Your task to perform on an android device: toggle wifi Image 0: 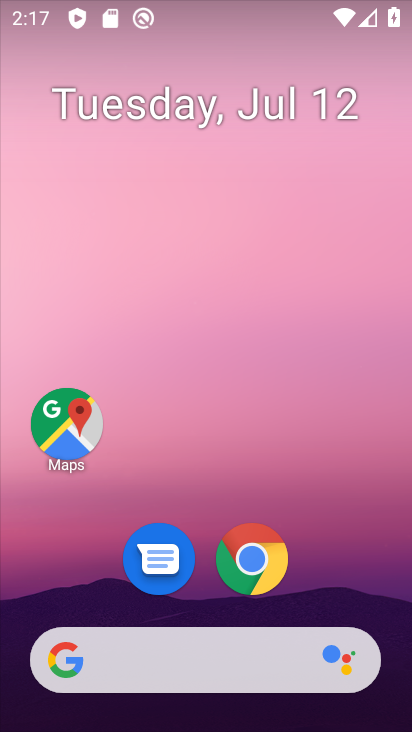
Step 0: press home button
Your task to perform on an android device: toggle wifi Image 1: 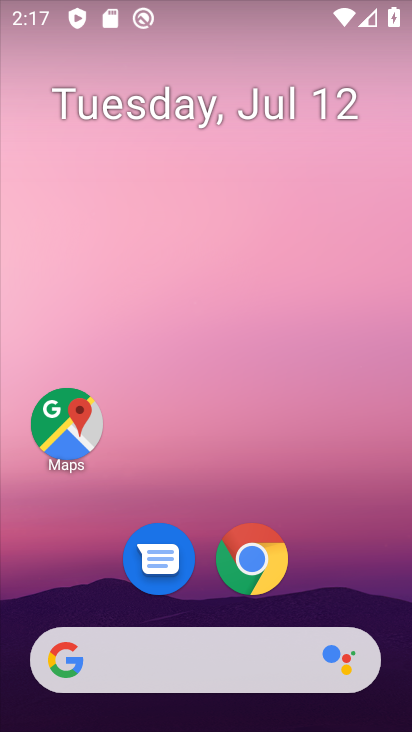
Step 1: drag from (348, 582) to (368, 219)
Your task to perform on an android device: toggle wifi Image 2: 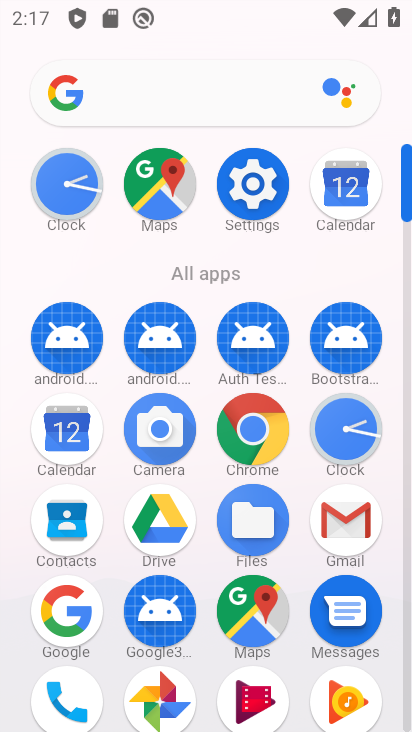
Step 2: click (263, 205)
Your task to perform on an android device: toggle wifi Image 3: 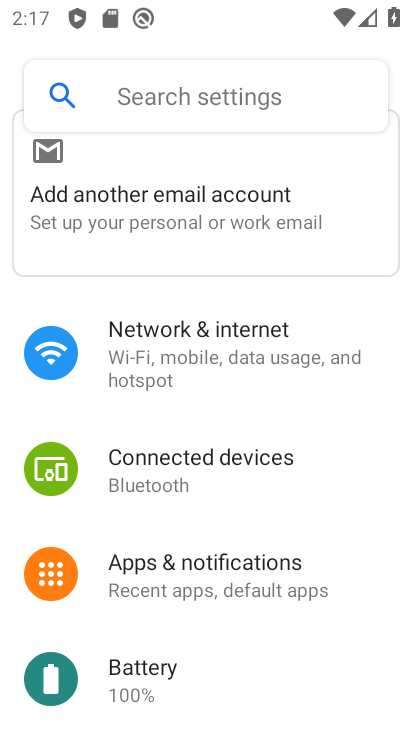
Step 3: click (220, 337)
Your task to perform on an android device: toggle wifi Image 4: 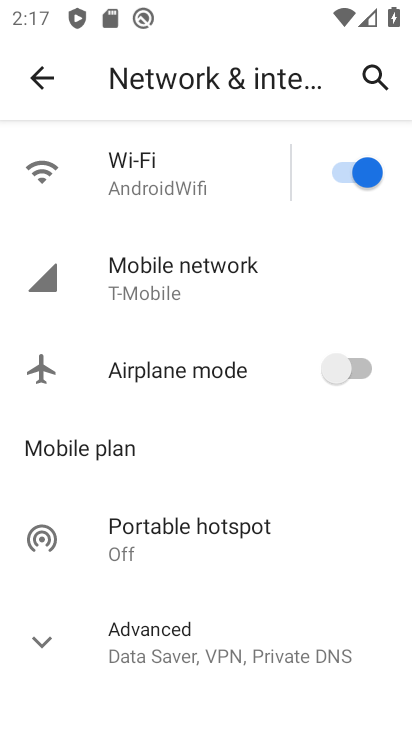
Step 4: click (358, 170)
Your task to perform on an android device: toggle wifi Image 5: 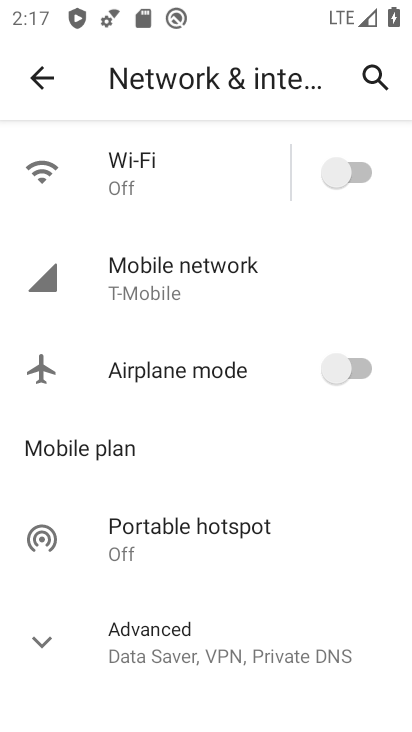
Step 5: task complete